Your task to perform on an android device: turn off smart reply in the gmail app Image 0: 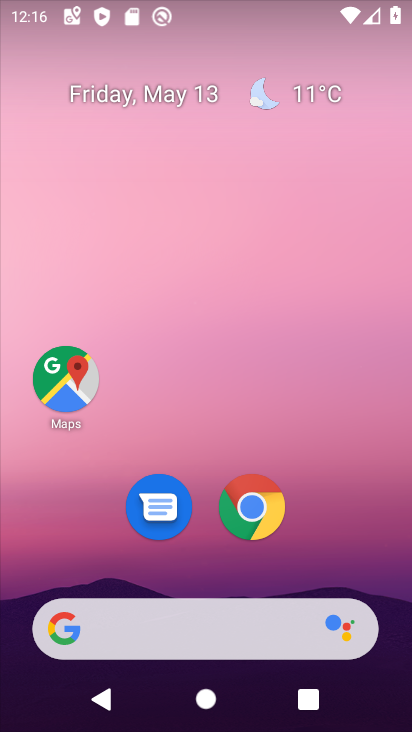
Step 0: drag from (234, 569) to (148, 27)
Your task to perform on an android device: turn off smart reply in the gmail app Image 1: 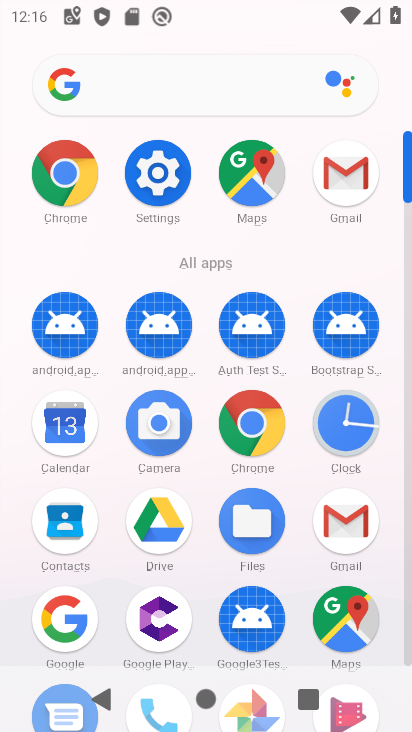
Step 1: click (347, 533)
Your task to perform on an android device: turn off smart reply in the gmail app Image 2: 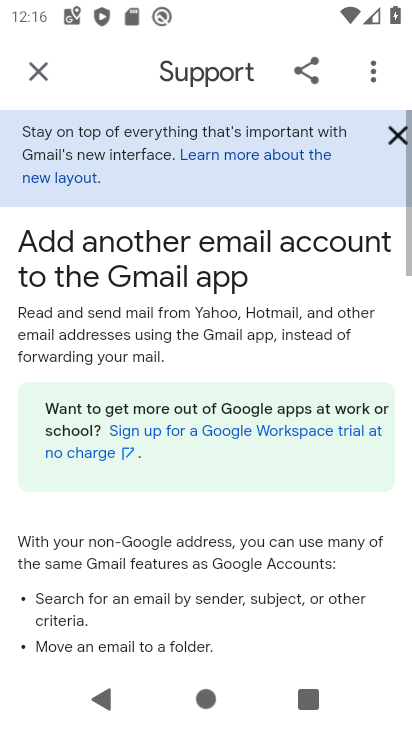
Step 2: click (48, 69)
Your task to perform on an android device: turn off smart reply in the gmail app Image 3: 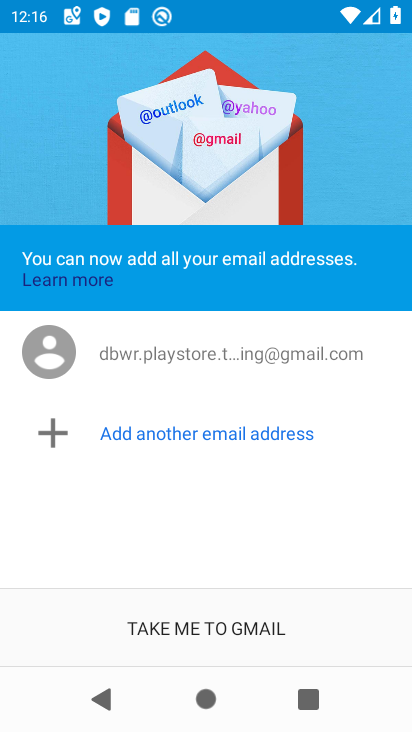
Step 3: click (104, 634)
Your task to perform on an android device: turn off smart reply in the gmail app Image 4: 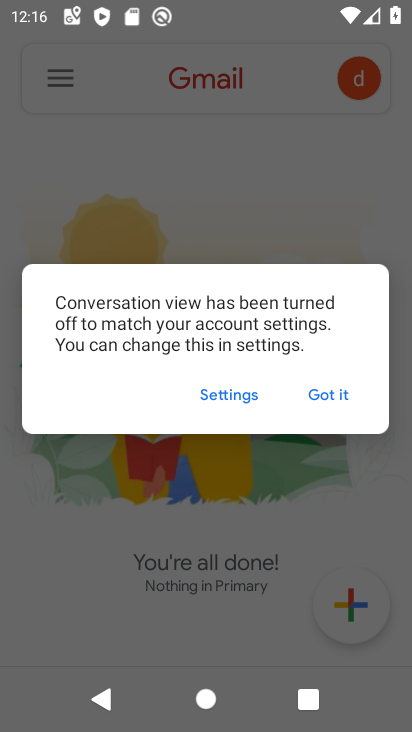
Step 4: click (320, 394)
Your task to perform on an android device: turn off smart reply in the gmail app Image 5: 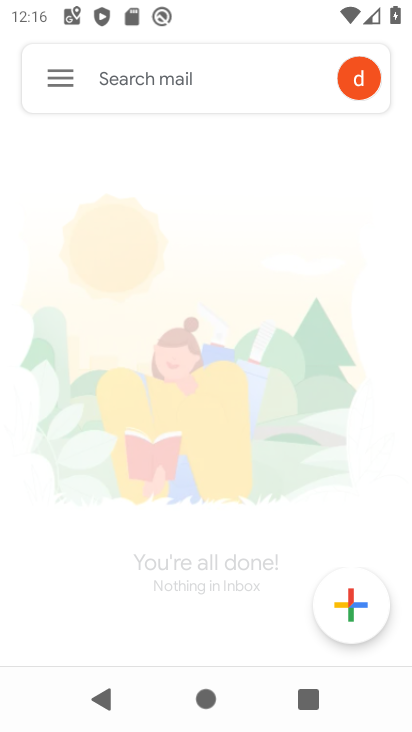
Step 5: click (32, 75)
Your task to perform on an android device: turn off smart reply in the gmail app Image 6: 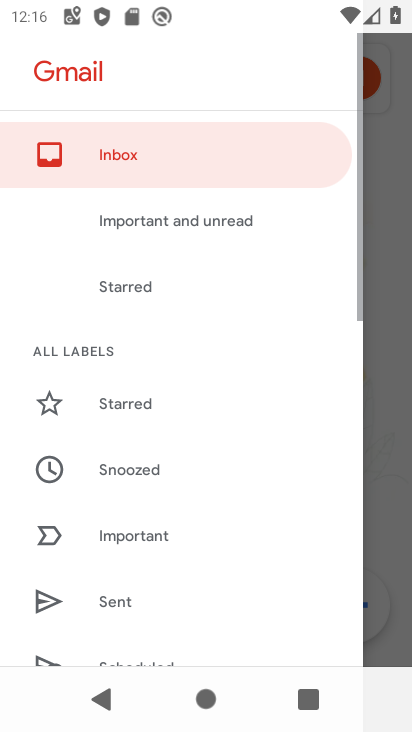
Step 6: drag from (111, 630) to (84, 28)
Your task to perform on an android device: turn off smart reply in the gmail app Image 7: 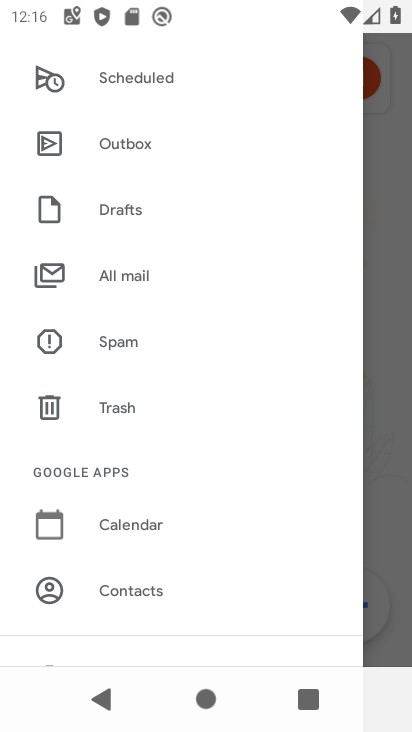
Step 7: drag from (160, 569) to (154, 98)
Your task to perform on an android device: turn off smart reply in the gmail app Image 8: 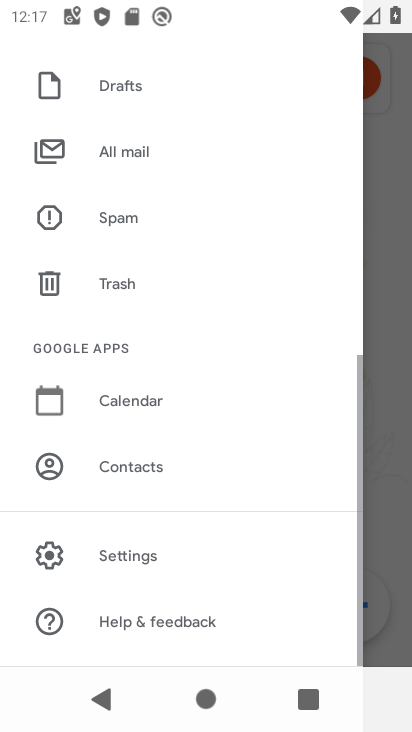
Step 8: click (119, 554)
Your task to perform on an android device: turn off smart reply in the gmail app Image 9: 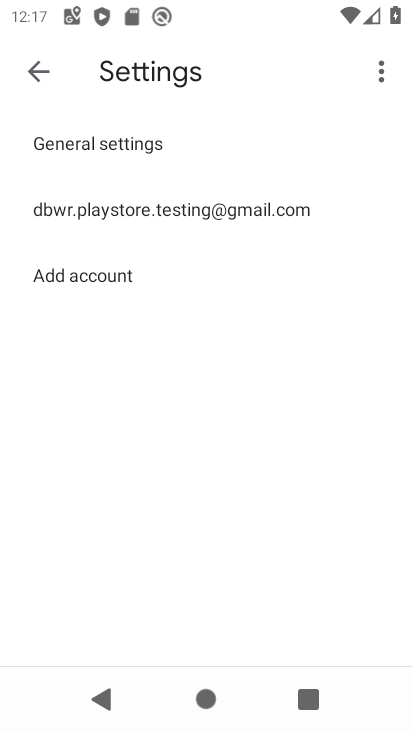
Step 9: click (143, 215)
Your task to perform on an android device: turn off smart reply in the gmail app Image 10: 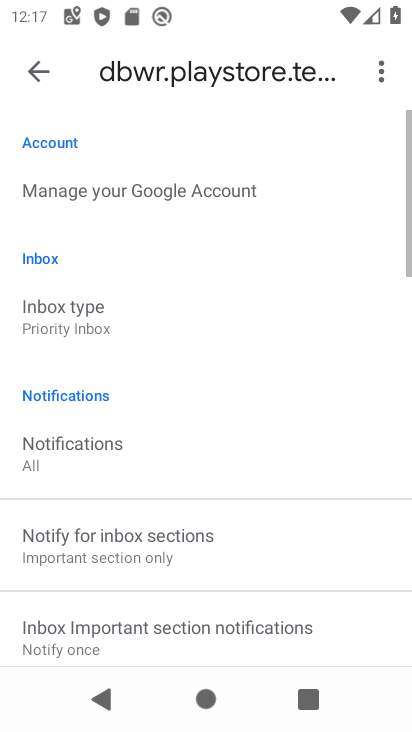
Step 10: drag from (195, 582) to (175, 75)
Your task to perform on an android device: turn off smart reply in the gmail app Image 11: 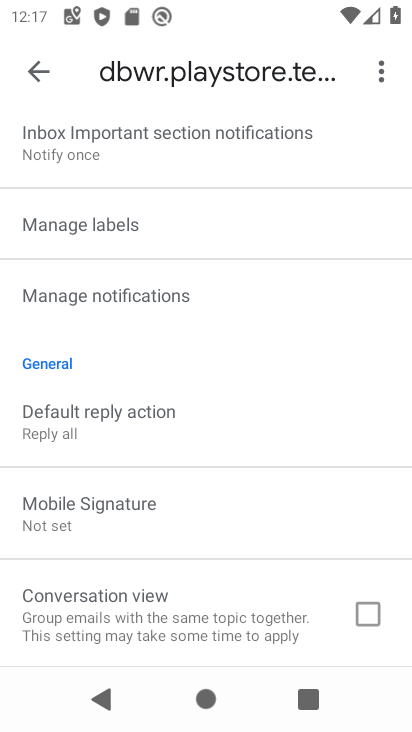
Step 11: drag from (180, 589) to (117, 56)
Your task to perform on an android device: turn off smart reply in the gmail app Image 12: 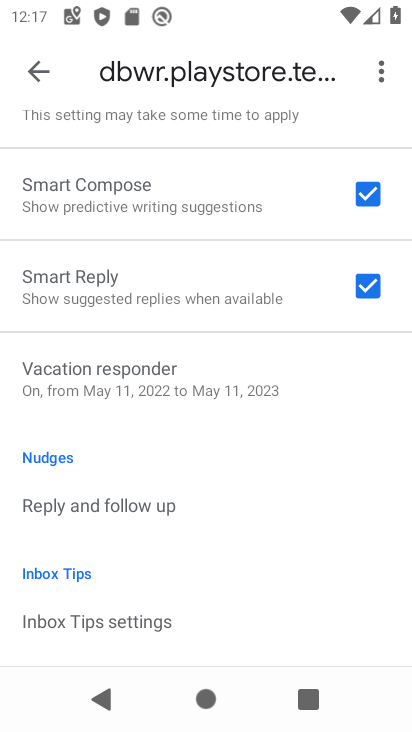
Step 12: click (358, 291)
Your task to perform on an android device: turn off smart reply in the gmail app Image 13: 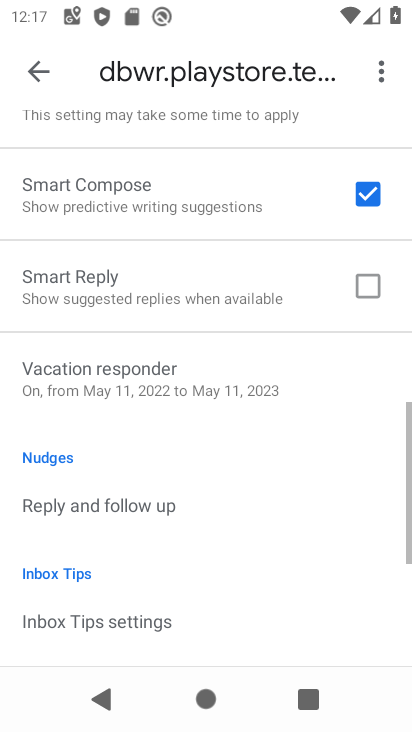
Step 13: task complete